Your task to perform on an android device: delete the emails in spam in the gmail app Image 0: 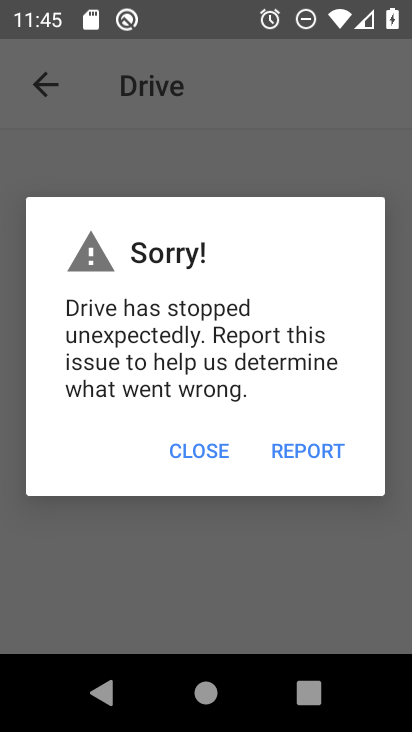
Step 0: press home button
Your task to perform on an android device: delete the emails in spam in the gmail app Image 1: 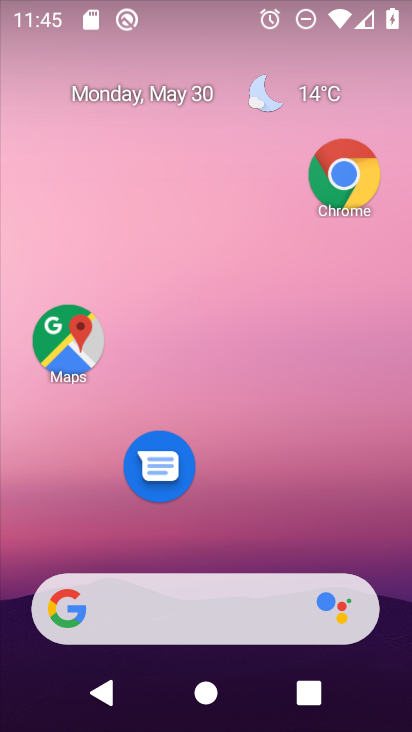
Step 1: drag from (232, 452) to (209, 127)
Your task to perform on an android device: delete the emails in spam in the gmail app Image 2: 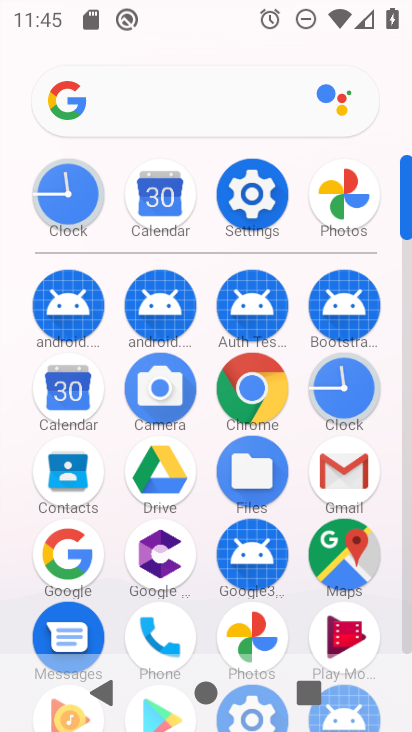
Step 2: click (321, 485)
Your task to perform on an android device: delete the emails in spam in the gmail app Image 3: 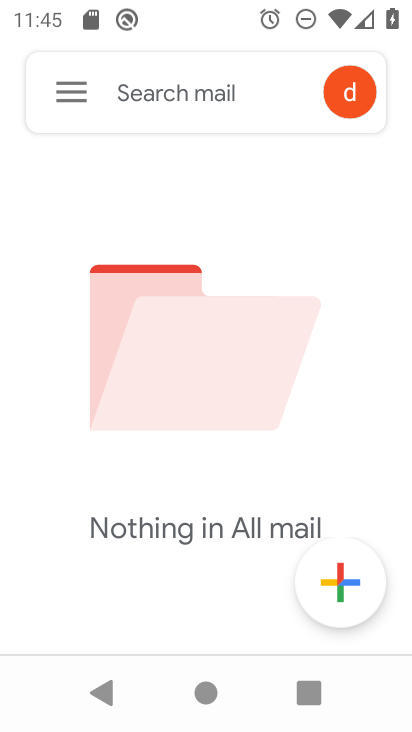
Step 3: click (71, 87)
Your task to perform on an android device: delete the emails in spam in the gmail app Image 4: 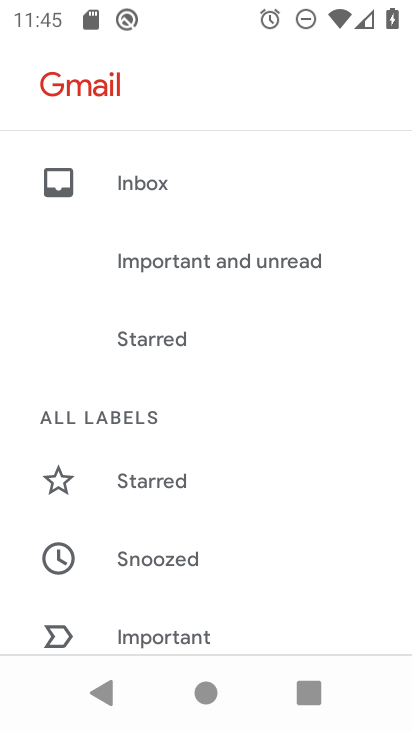
Step 4: drag from (185, 555) to (193, 340)
Your task to perform on an android device: delete the emails in spam in the gmail app Image 5: 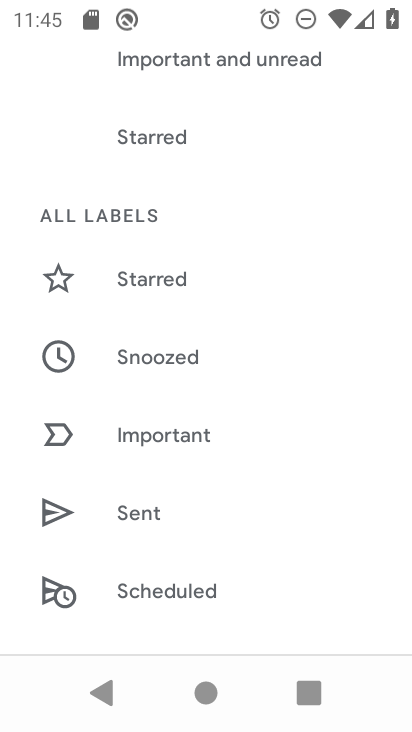
Step 5: drag from (162, 547) to (184, 309)
Your task to perform on an android device: delete the emails in spam in the gmail app Image 6: 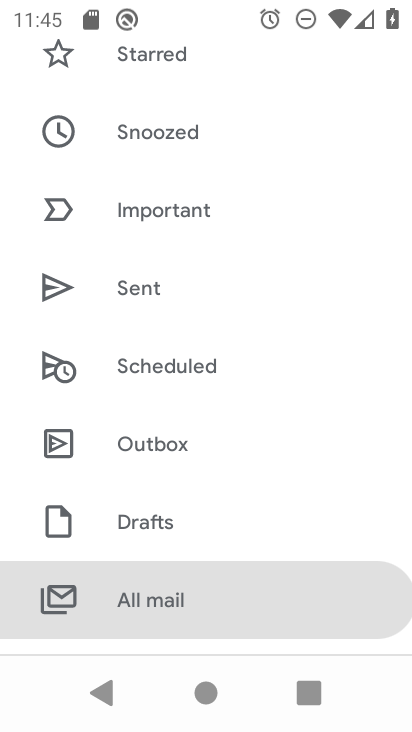
Step 6: drag from (188, 520) to (198, 265)
Your task to perform on an android device: delete the emails in spam in the gmail app Image 7: 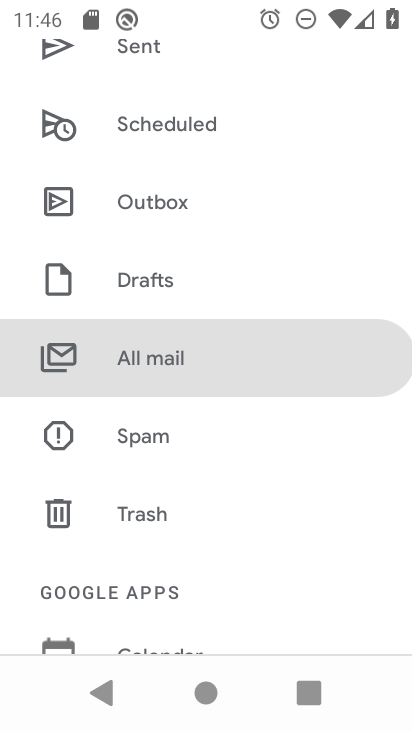
Step 7: click (179, 456)
Your task to perform on an android device: delete the emails in spam in the gmail app Image 8: 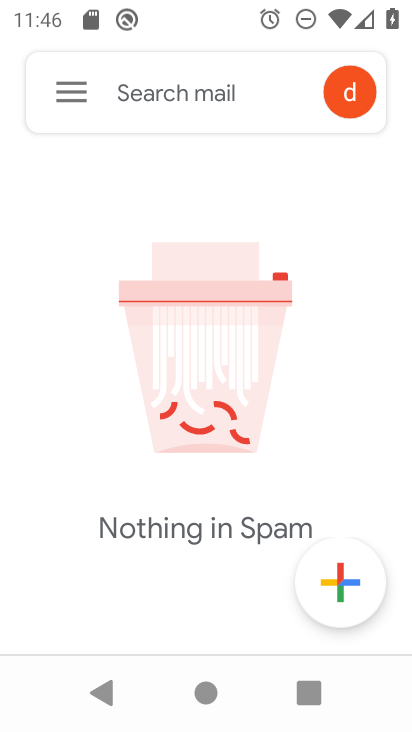
Step 8: task complete